Your task to perform on an android device: turn pop-ups off in chrome Image 0: 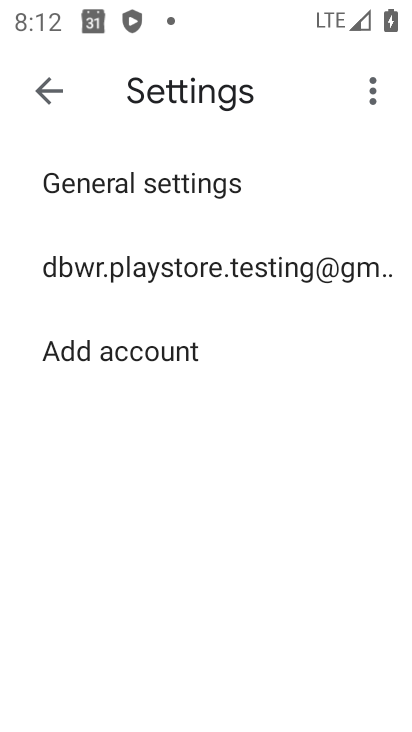
Step 0: press back button
Your task to perform on an android device: turn pop-ups off in chrome Image 1: 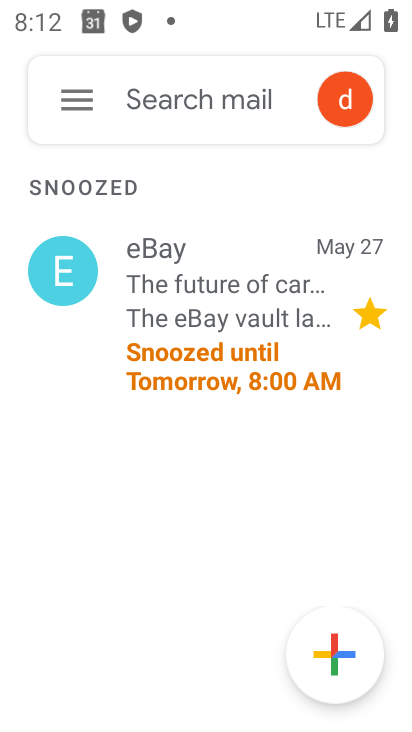
Step 1: press back button
Your task to perform on an android device: turn pop-ups off in chrome Image 2: 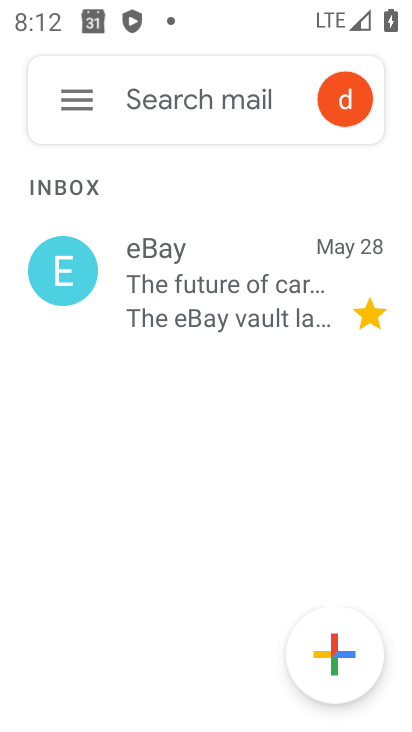
Step 2: press home button
Your task to perform on an android device: turn pop-ups off in chrome Image 3: 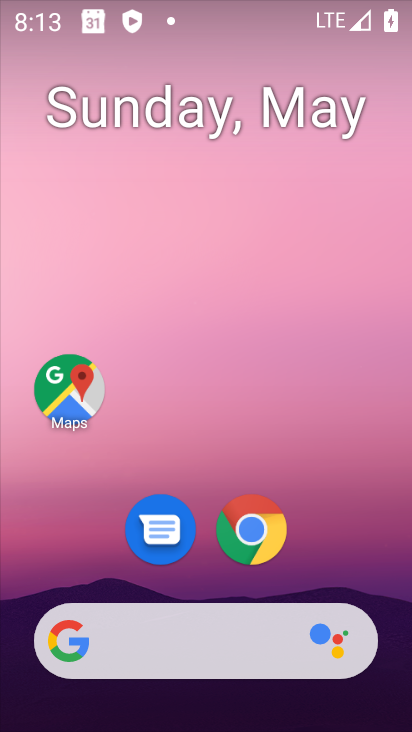
Step 3: click (270, 541)
Your task to perform on an android device: turn pop-ups off in chrome Image 4: 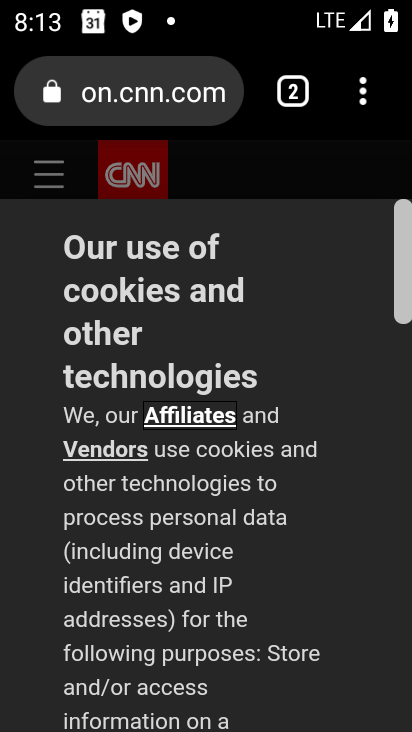
Step 4: drag from (360, 85) to (197, 546)
Your task to perform on an android device: turn pop-ups off in chrome Image 5: 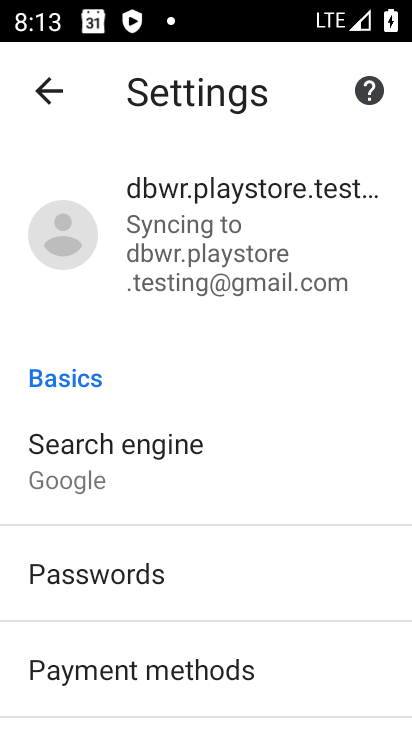
Step 5: drag from (167, 685) to (230, 148)
Your task to perform on an android device: turn pop-ups off in chrome Image 6: 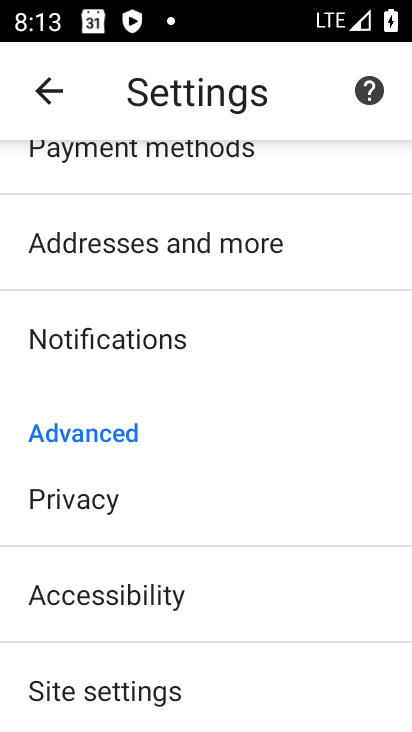
Step 6: click (100, 688)
Your task to perform on an android device: turn pop-ups off in chrome Image 7: 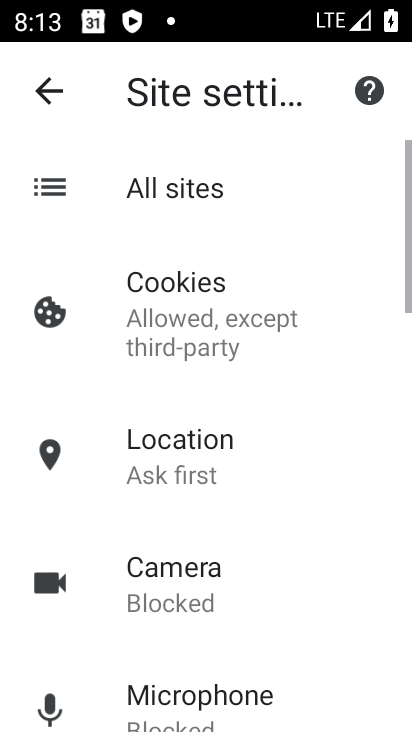
Step 7: drag from (190, 688) to (262, 96)
Your task to perform on an android device: turn pop-ups off in chrome Image 8: 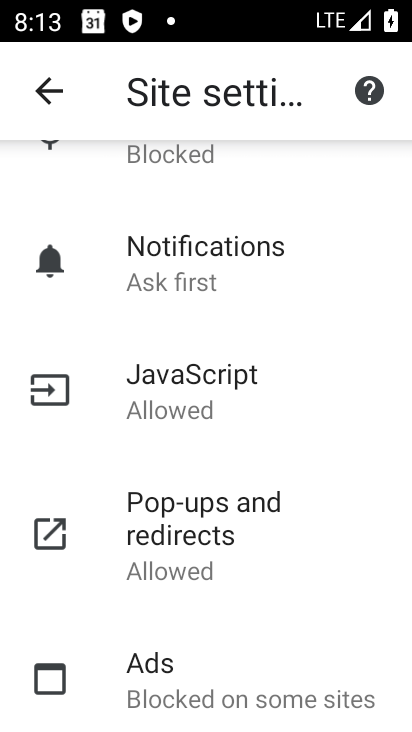
Step 8: click (182, 542)
Your task to perform on an android device: turn pop-ups off in chrome Image 9: 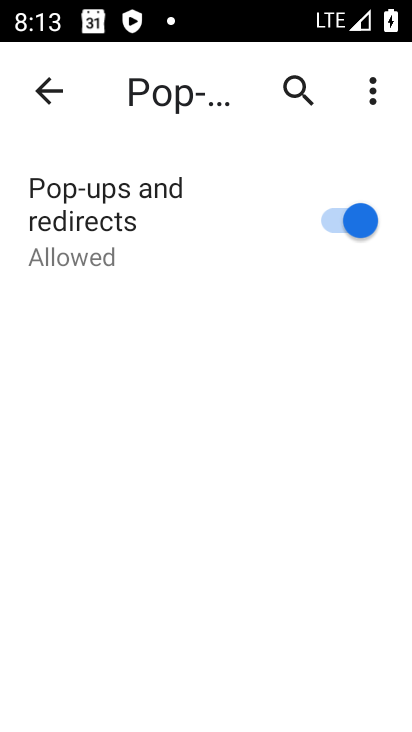
Step 9: click (345, 225)
Your task to perform on an android device: turn pop-ups off in chrome Image 10: 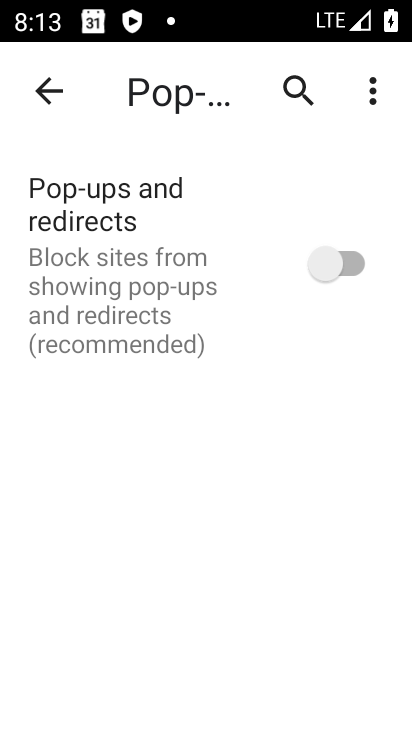
Step 10: task complete